Your task to perform on an android device: change the clock style Image 0: 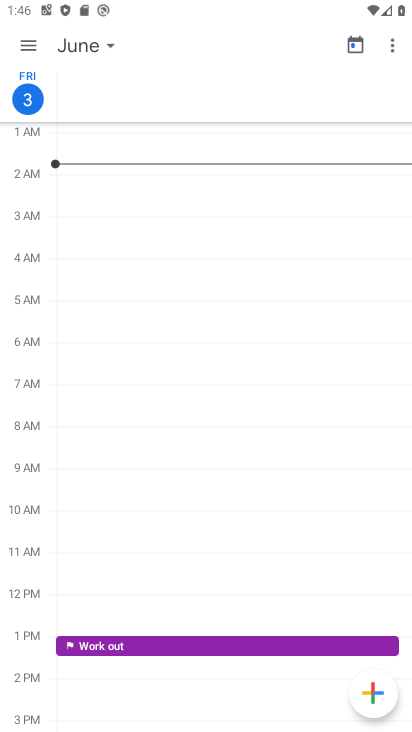
Step 0: press home button
Your task to perform on an android device: change the clock style Image 1: 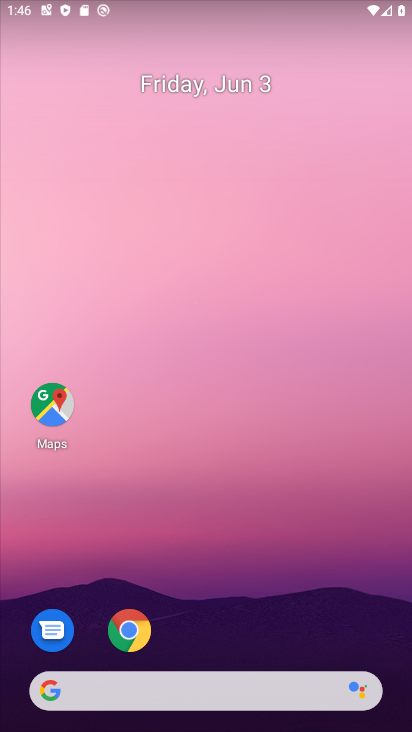
Step 1: drag from (214, 722) to (214, 161)
Your task to perform on an android device: change the clock style Image 2: 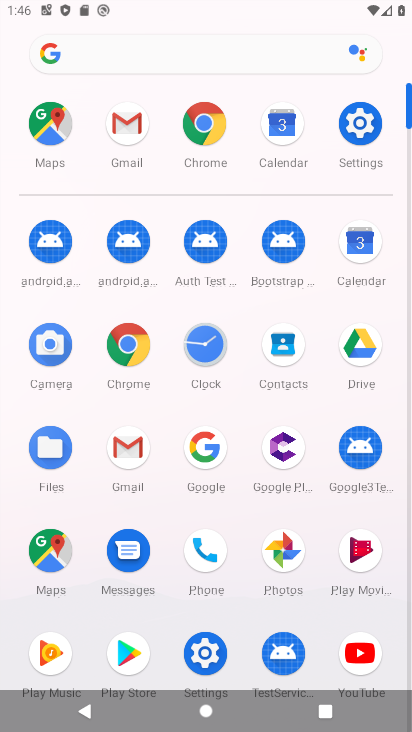
Step 2: click (207, 342)
Your task to perform on an android device: change the clock style Image 3: 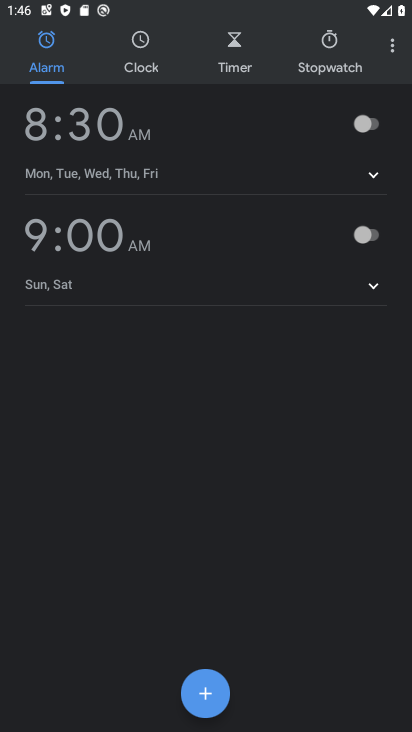
Step 3: click (392, 52)
Your task to perform on an android device: change the clock style Image 4: 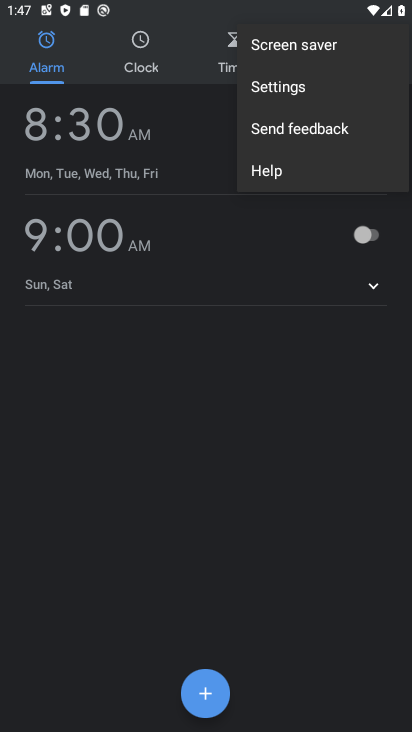
Step 4: click (296, 88)
Your task to perform on an android device: change the clock style Image 5: 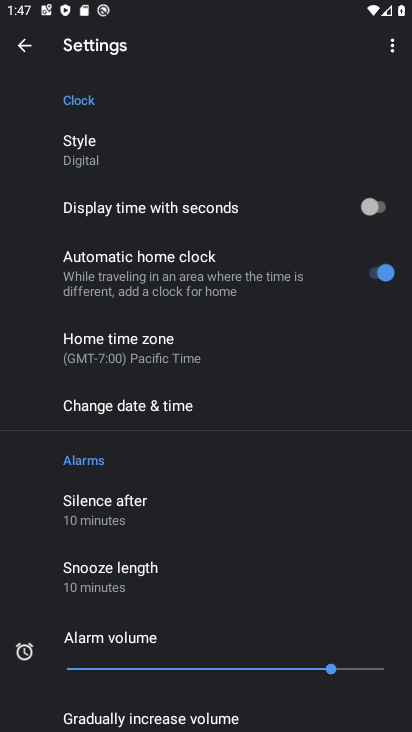
Step 5: click (81, 152)
Your task to perform on an android device: change the clock style Image 6: 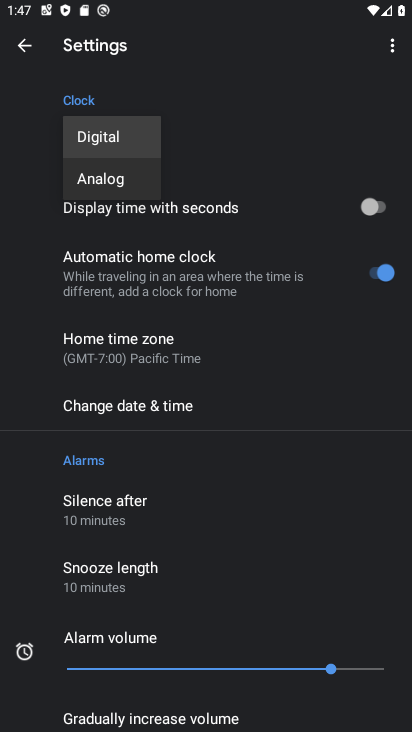
Step 6: click (107, 180)
Your task to perform on an android device: change the clock style Image 7: 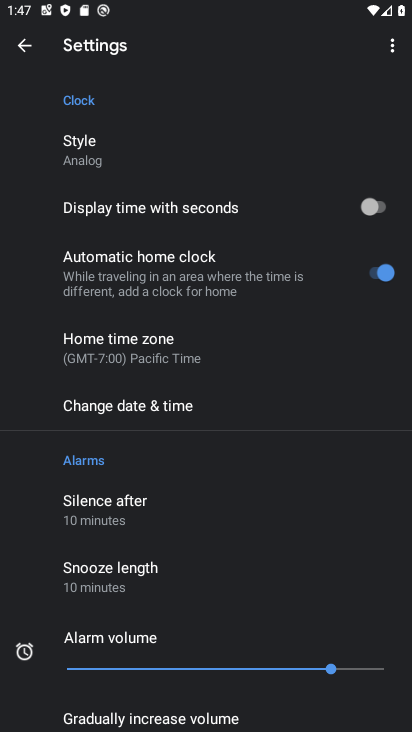
Step 7: task complete